Your task to perform on an android device: Show me the alarms in the clock app Image 0: 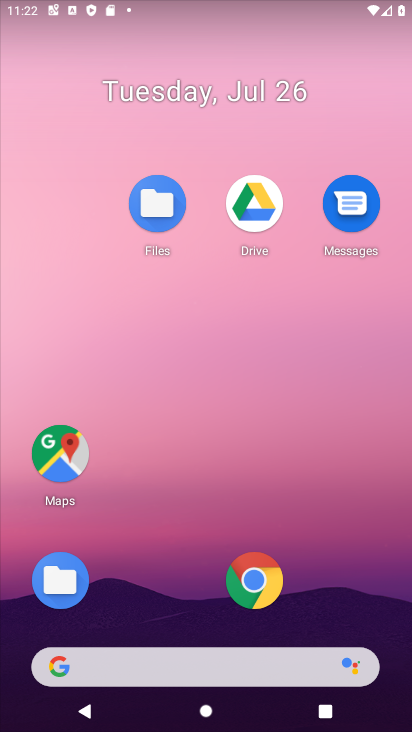
Step 0: drag from (182, 592) to (246, 10)
Your task to perform on an android device: Show me the alarms in the clock app Image 1: 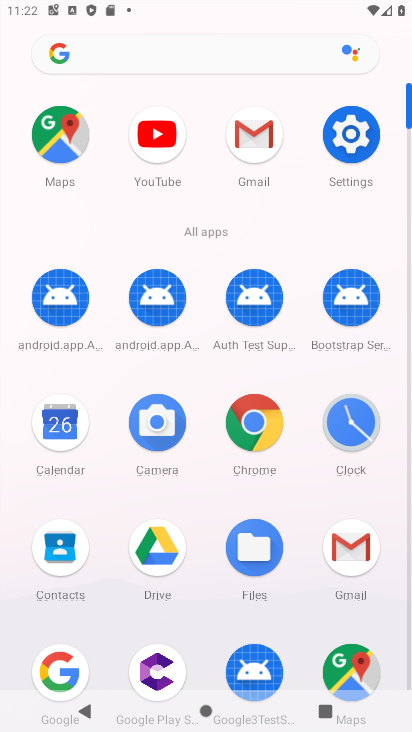
Step 1: click (351, 410)
Your task to perform on an android device: Show me the alarms in the clock app Image 2: 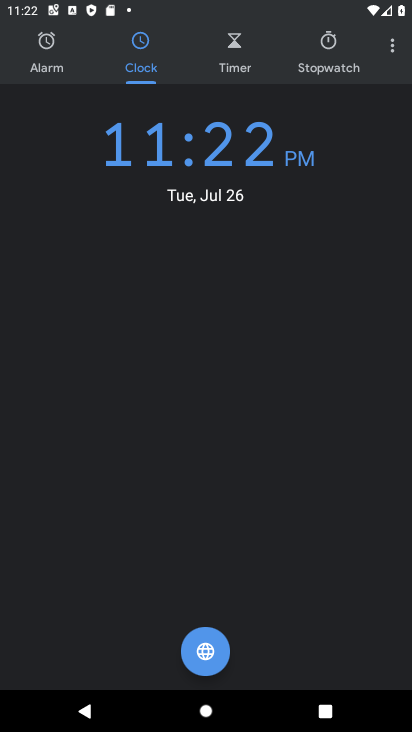
Step 2: click (53, 52)
Your task to perform on an android device: Show me the alarms in the clock app Image 3: 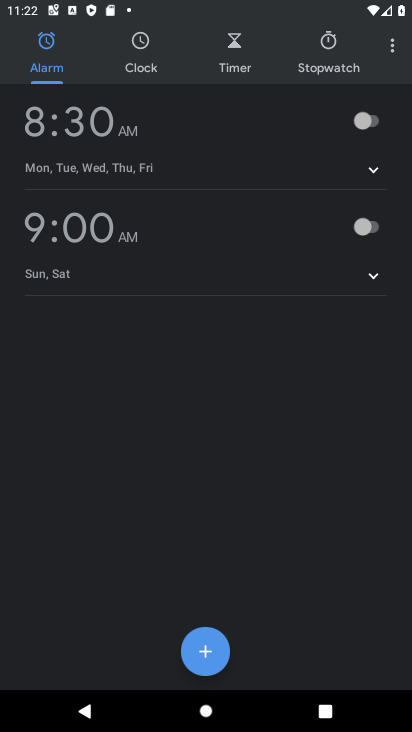
Step 3: task complete